Your task to perform on an android device: Open wifi settings Image 0: 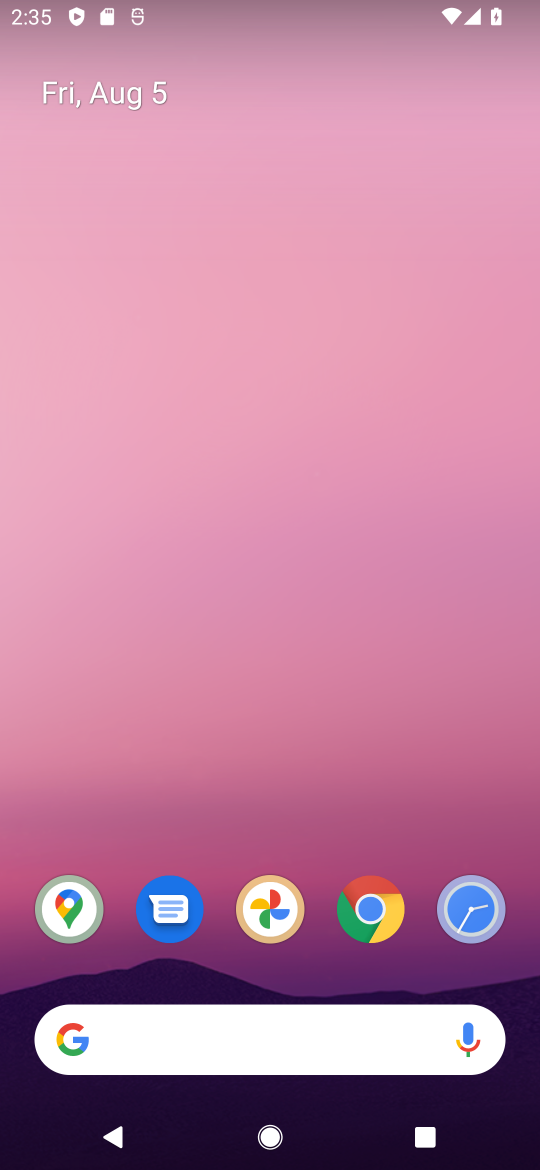
Step 0: drag from (249, 978) to (266, 62)
Your task to perform on an android device: Open wifi settings Image 1: 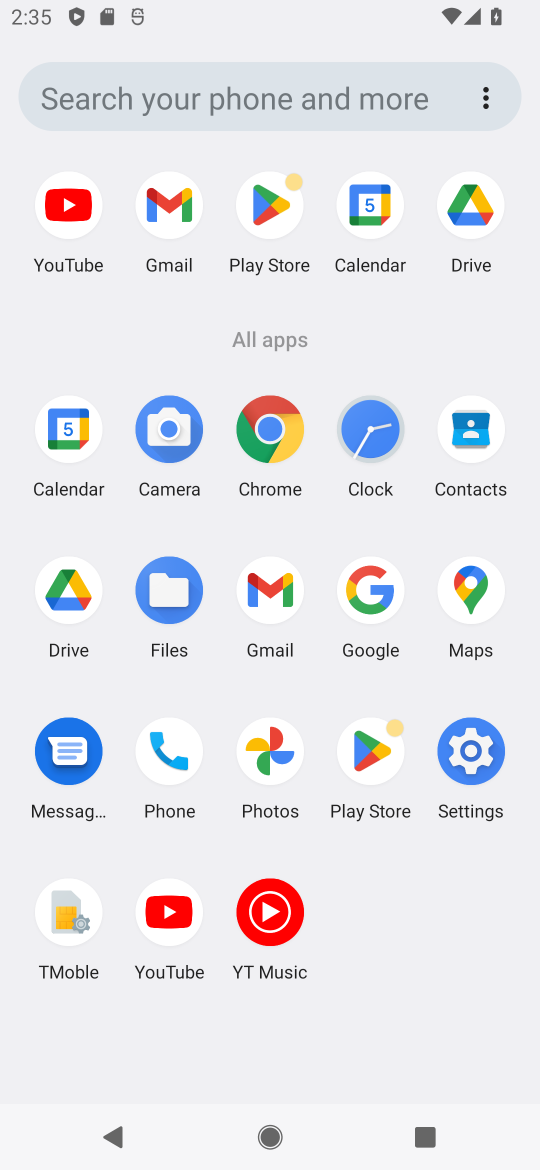
Step 1: click (498, 739)
Your task to perform on an android device: Open wifi settings Image 2: 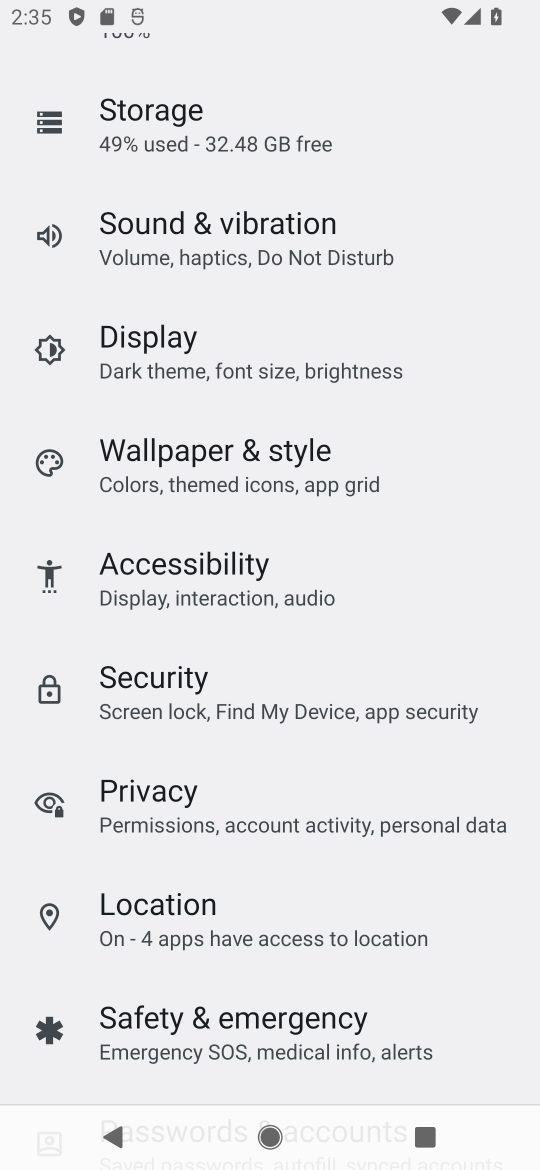
Step 2: drag from (266, 161) to (336, 882)
Your task to perform on an android device: Open wifi settings Image 3: 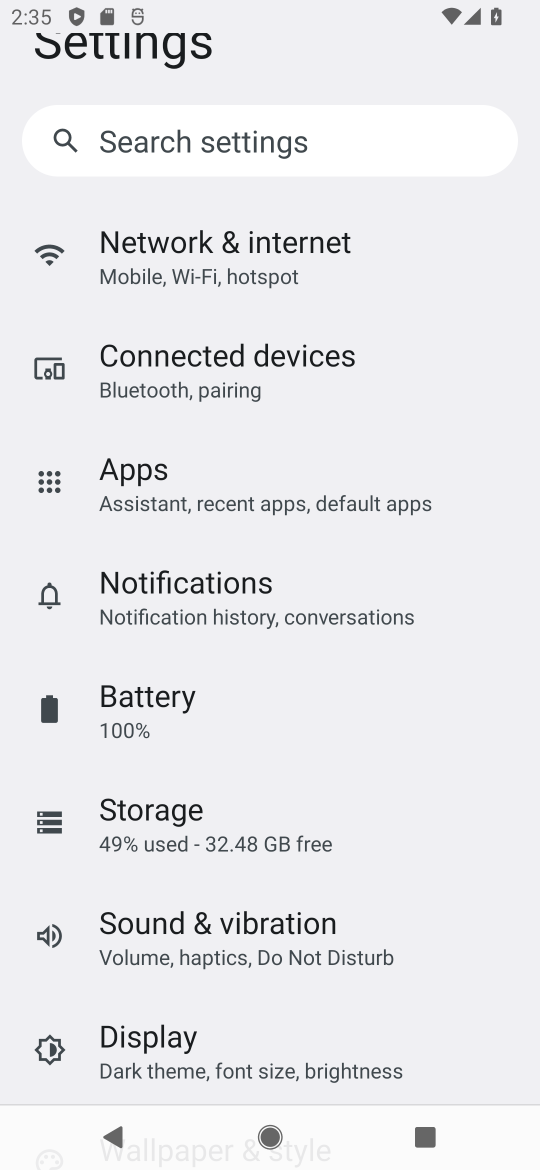
Step 3: click (301, 262)
Your task to perform on an android device: Open wifi settings Image 4: 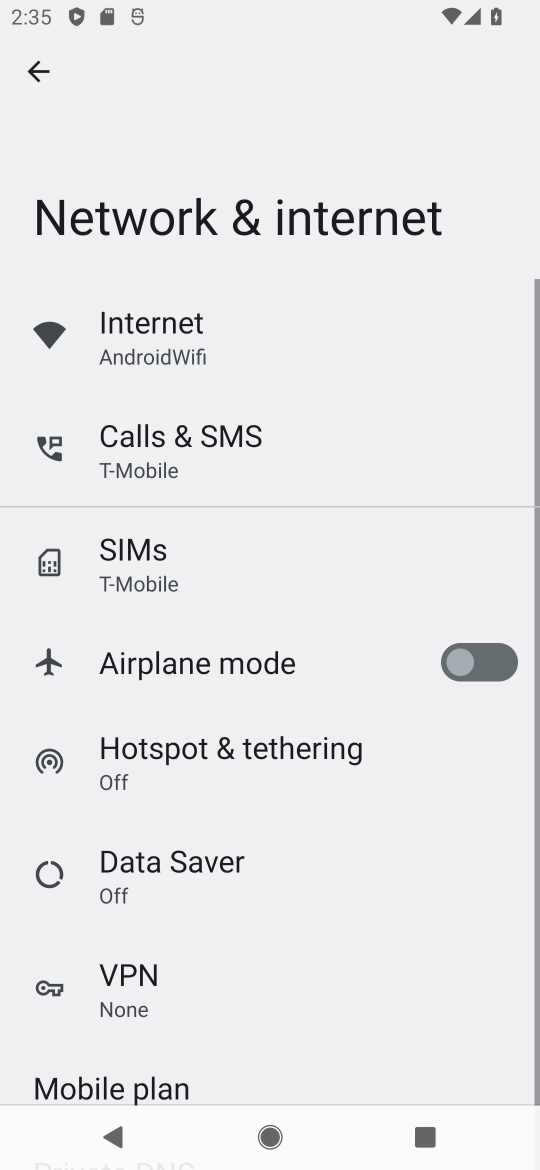
Step 4: task complete